Your task to perform on an android device: toggle javascript in the chrome app Image 0: 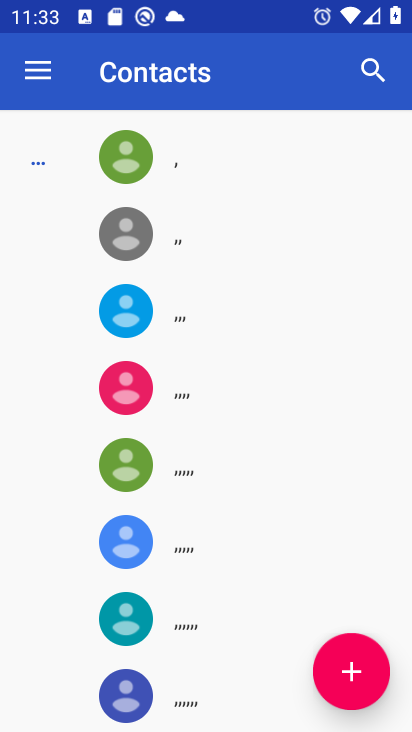
Step 0: press home button
Your task to perform on an android device: toggle javascript in the chrome app Image 1: 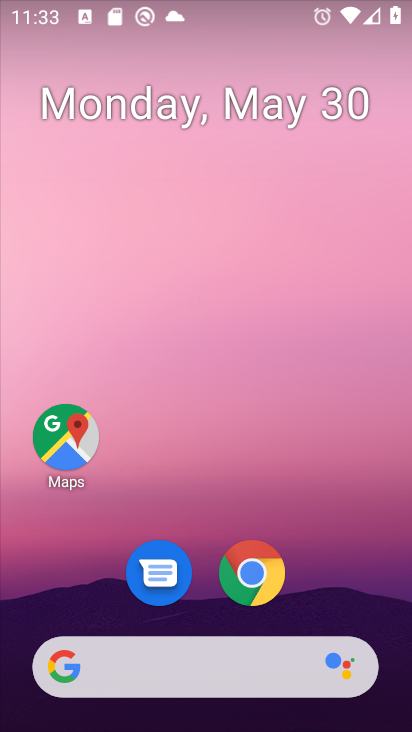
Step 1: drag from (263, 605) to (260, 165)
Your task to perform on an android device: toggle javascript in the chrome app Image 2: 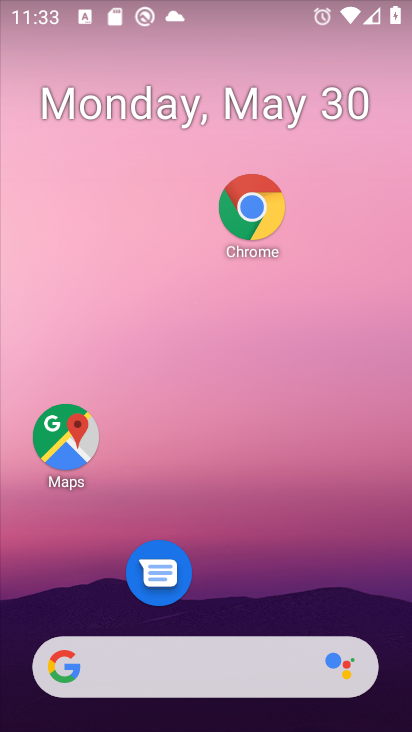
Step 2: drag from (244, 649) to (294, 128)
Your task to perform on an android device: toggle javascript in the chrome app Image 3: 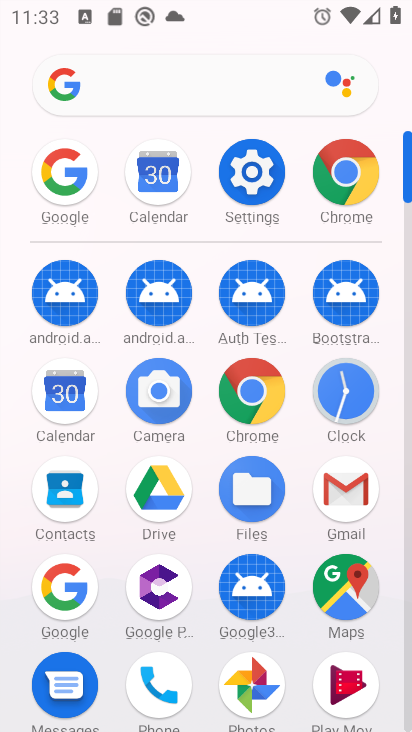
Step 3: click (358, 192)
Your task to perform on an android device: toggle javascript in the chrome app Image 4: 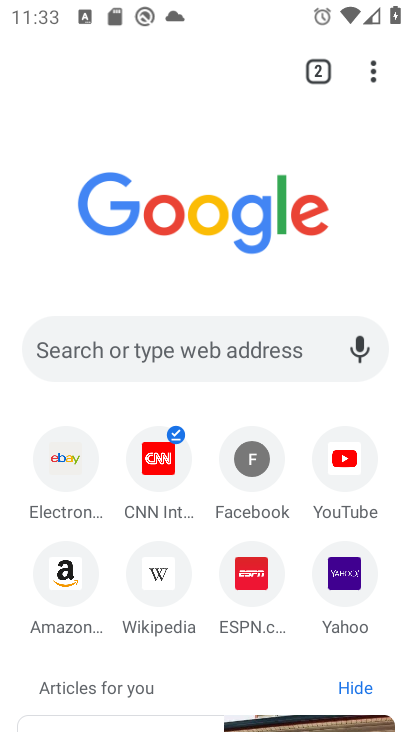
Step 4: click (384, 66)
Your task to perform on an android device: toggle javascript in the chrome app Image 5: 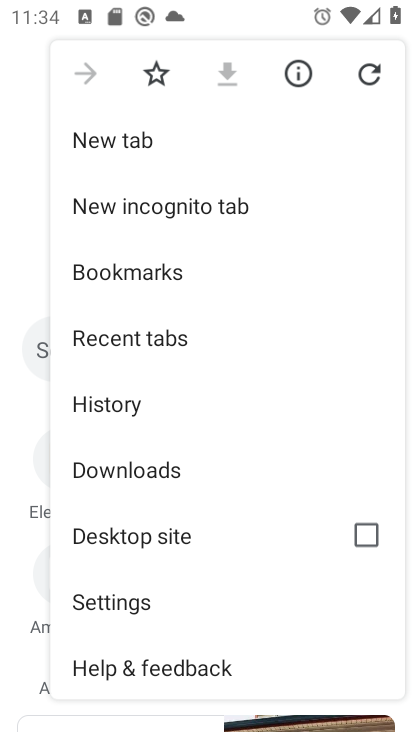
Step 5: drag from (149, 578) to (172, 374)
Your task to perform on an android device: toggle javascript in the chrome app Image 6: 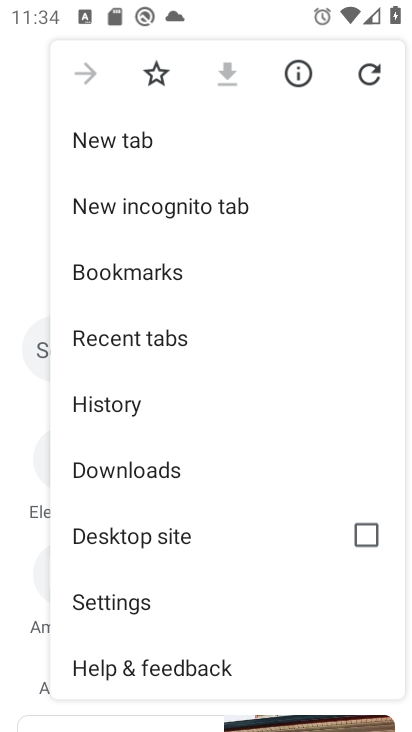
Step 6: click (180, 597)
Your task to perform on an android device: toggle javascript in the chrome app Image 7: 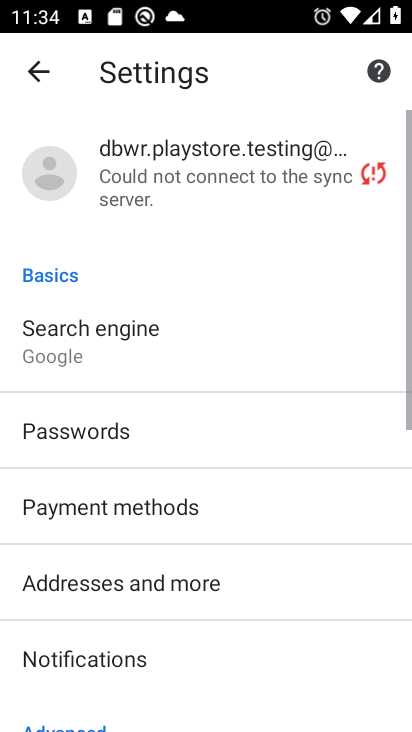
Step 7: drag from (167, 613) to (192, 150)
Your task to perform on an android device: toggle javascript in the chrome app Image 8: 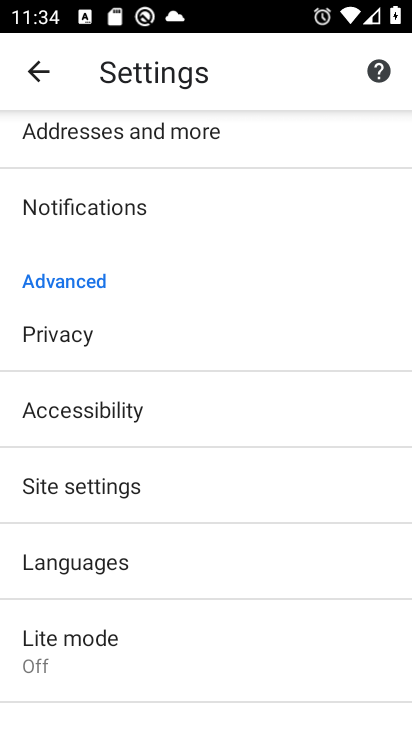
Step 8: click (124, 490)
Your task to perform on an android device: toggle javascript in the chrome app Image 9: 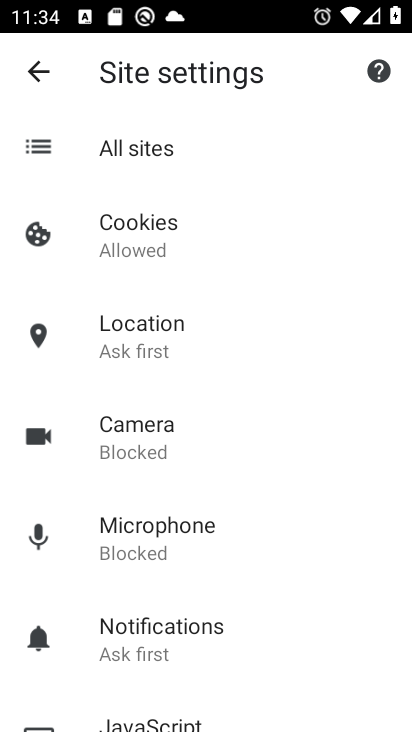
Step 9: drag from (175, 592) to (197, 394)
Your task to perform on an android device: toggle javascript in the chrome app Image 10: 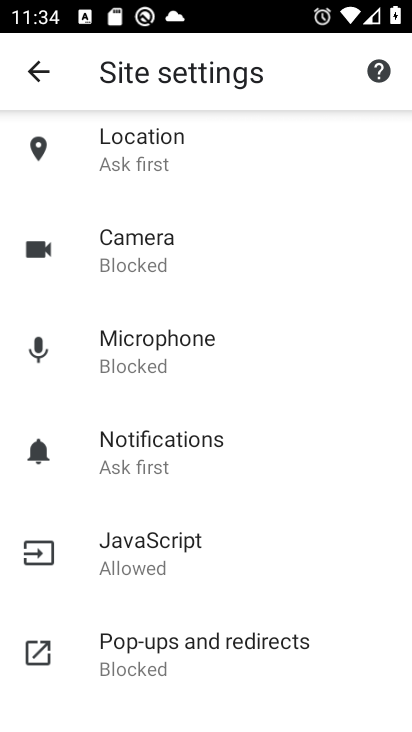
Step 10: click (199, 548)
Your task to perform on an android device: toggle javascript in the chrome app Image 11: 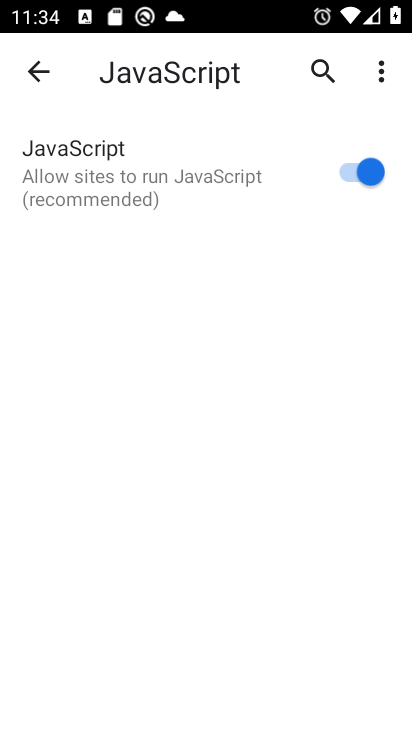
Step 11: click (335, 168)
Your task to perform on an android device: toggle javascript in the chrome app Image 12: 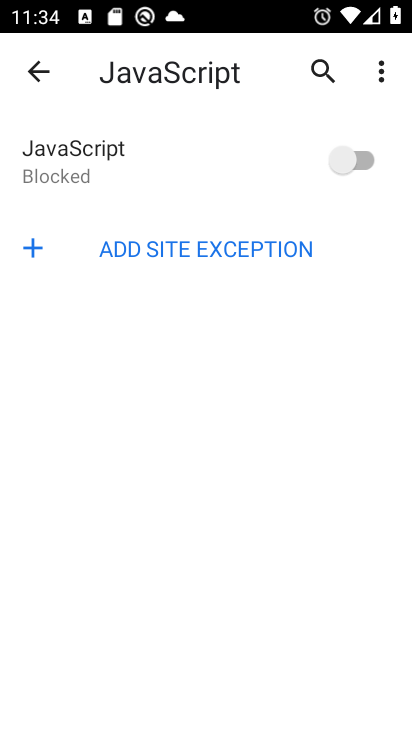
Step 12: task complete